Your task to perform on an android device: Go to Yahoo.com Image 0: 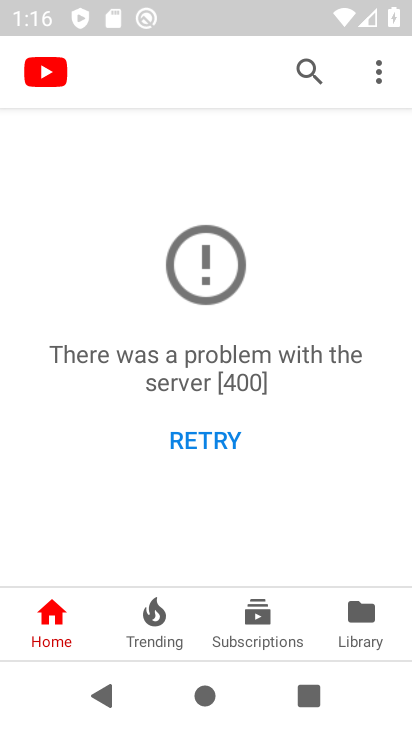
Step 0: press home button
Your task to perform on an android device: Go to Yahoo.com Image 1: 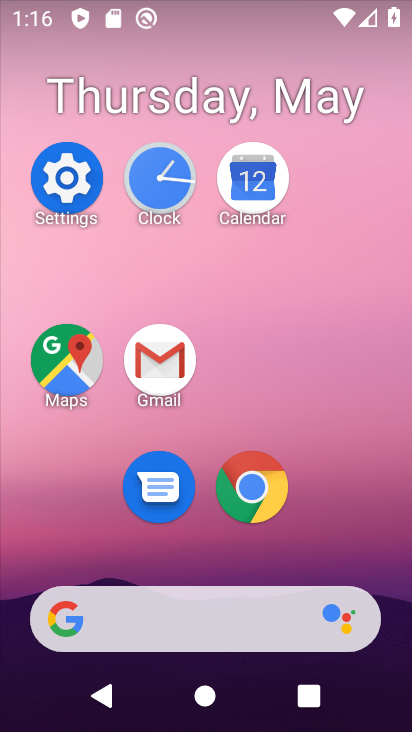
Step 1: click (262, 499)
Your task to perform on an android device: Go to Yahoo.com Image 2: 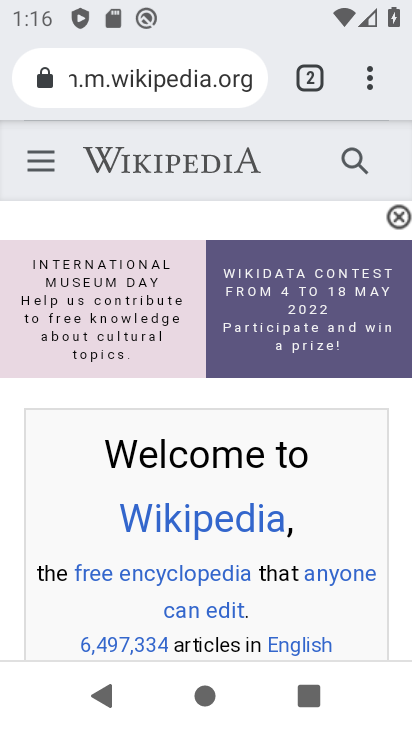
Step 2: click (315, 86)
Your task to perform on an android device: Go to Yahoo.com Image 3: 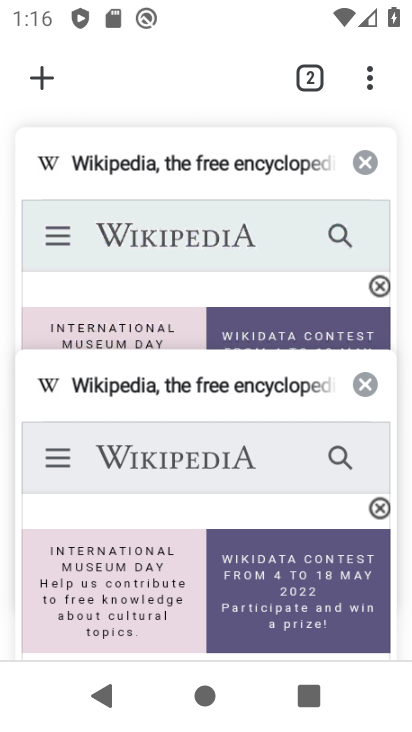
Step 3: click (35, 89)
Your task to perform on an android device: Go to Yahoo.com Image 4: 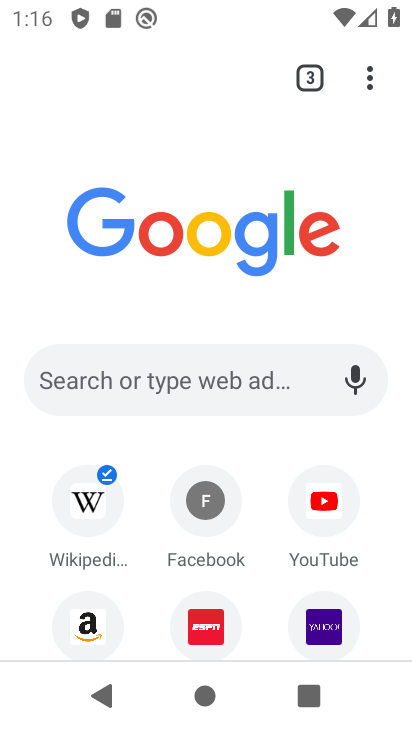
Step 4: click (340, 637)
Your task to perform on an android device: Go to Yahoo.com Image 5: 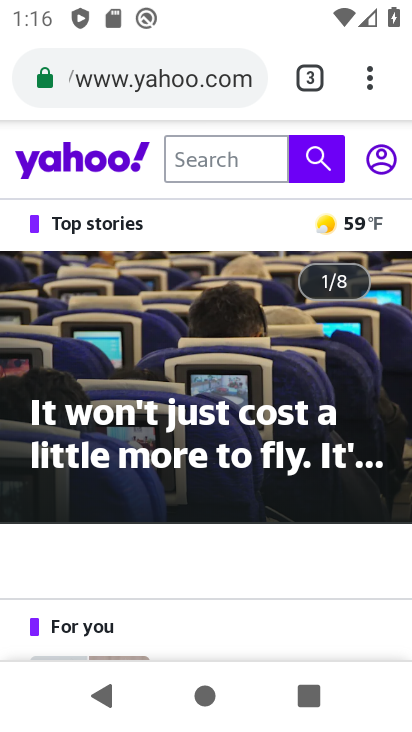
Step 5: task complete